Your task to perform on an android device: set the stopwatch Image 0: 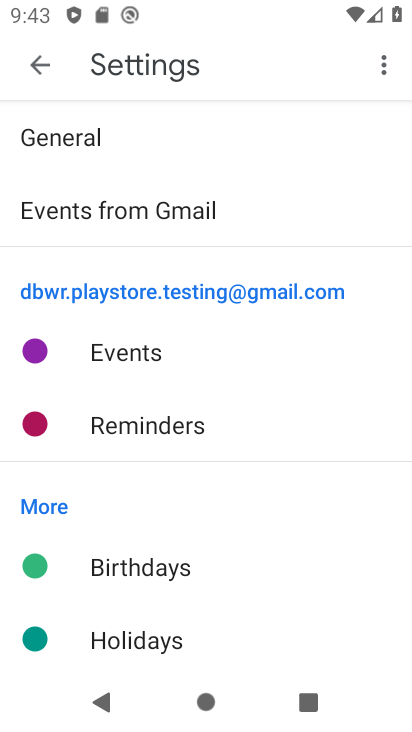
Step 0: press home button
Your task to perform on an android device: set the stopwatch Image 1: 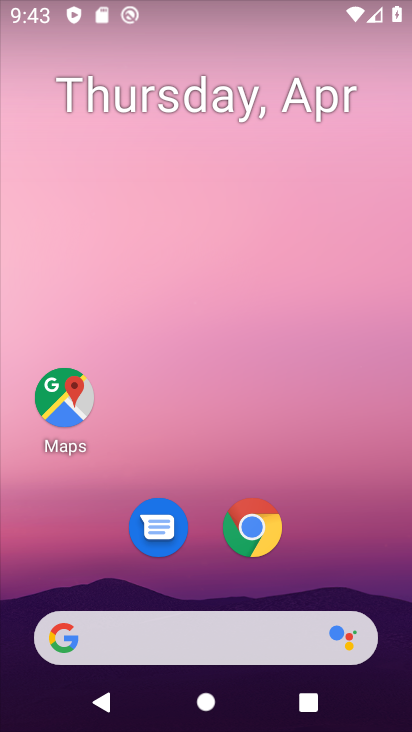
Step 1: drag from (180, 577) to (305, 8)
Your task to perform on an android device: set the stopwatch Image 2: 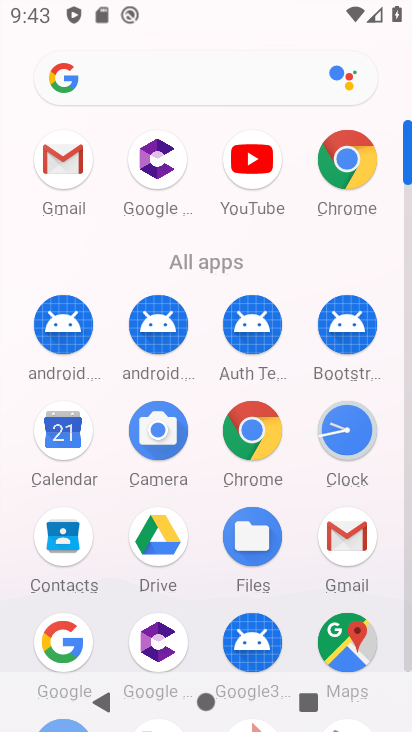
Step 2: click (347, 442)
Your task to perform on an android device: set the stopwatch Image 3: 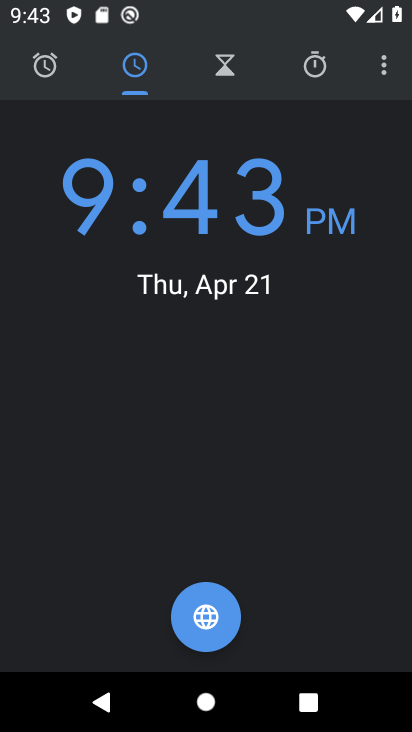
Step 3: click (317, 69)
Your task to perform on an android device: set the stopwatch Image 4: 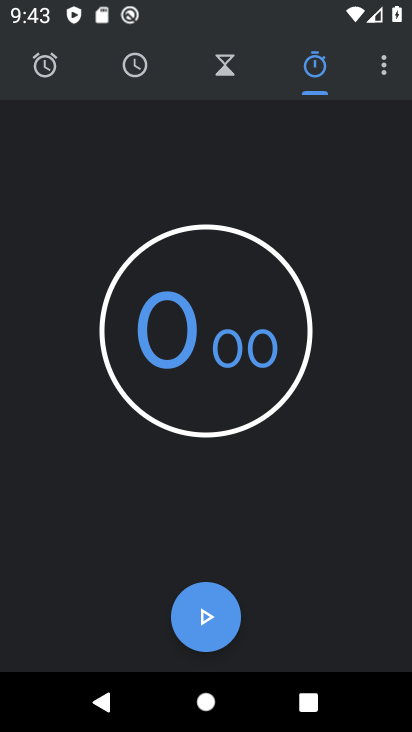
Step 4: click (225, 335)
Your task to perform on an android device: set the stopwatch Image 5: 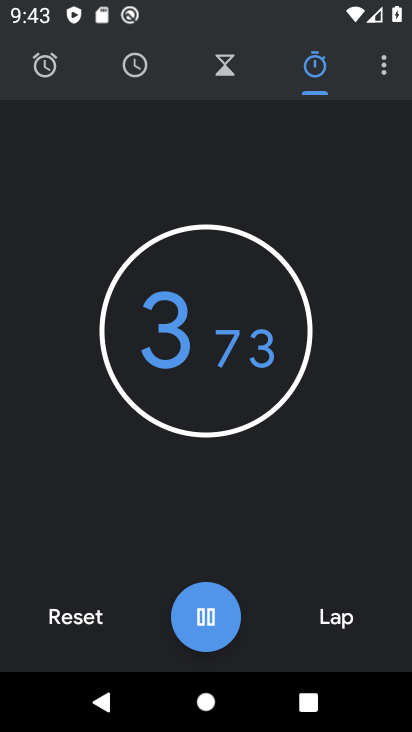
Step 5: click (217, 330)
Your task to perform on an android device: set the stopwatch Image 6: 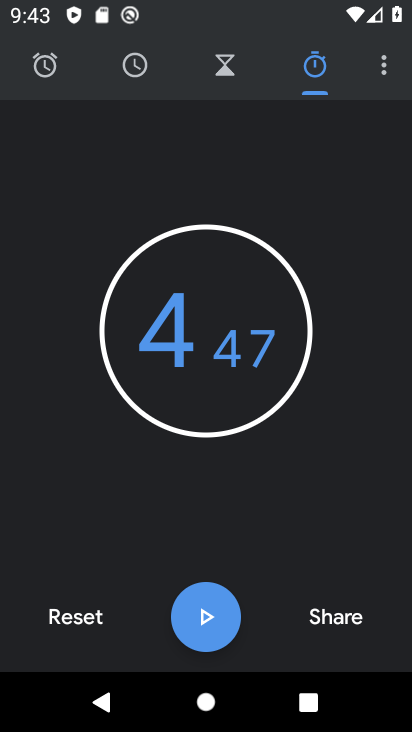
Step 6: task complete